Your task to perform on an android device: Clear all items from cart on bestbuy.com. Image 0: 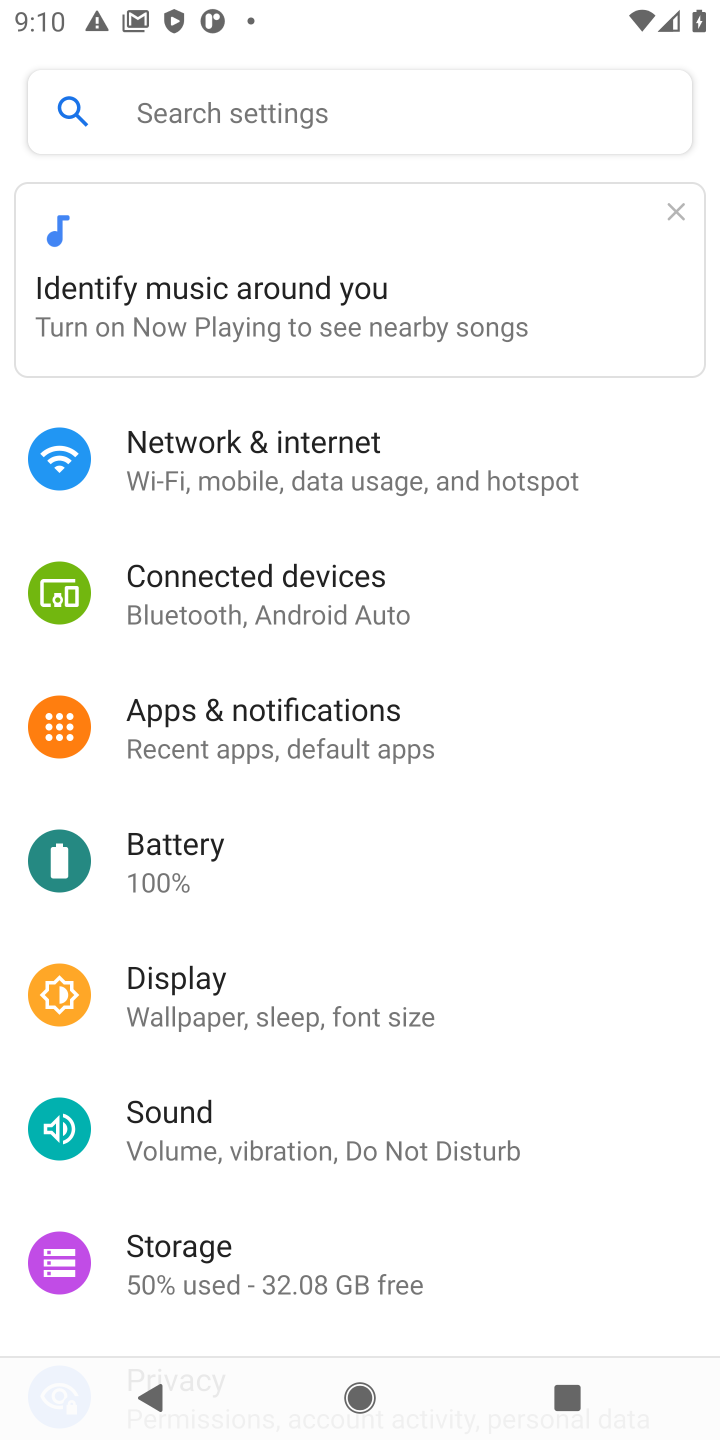
Step 0: press home button
Your task to perform on an android device: Clear all items from cart on bestbuy.com. Image 1: 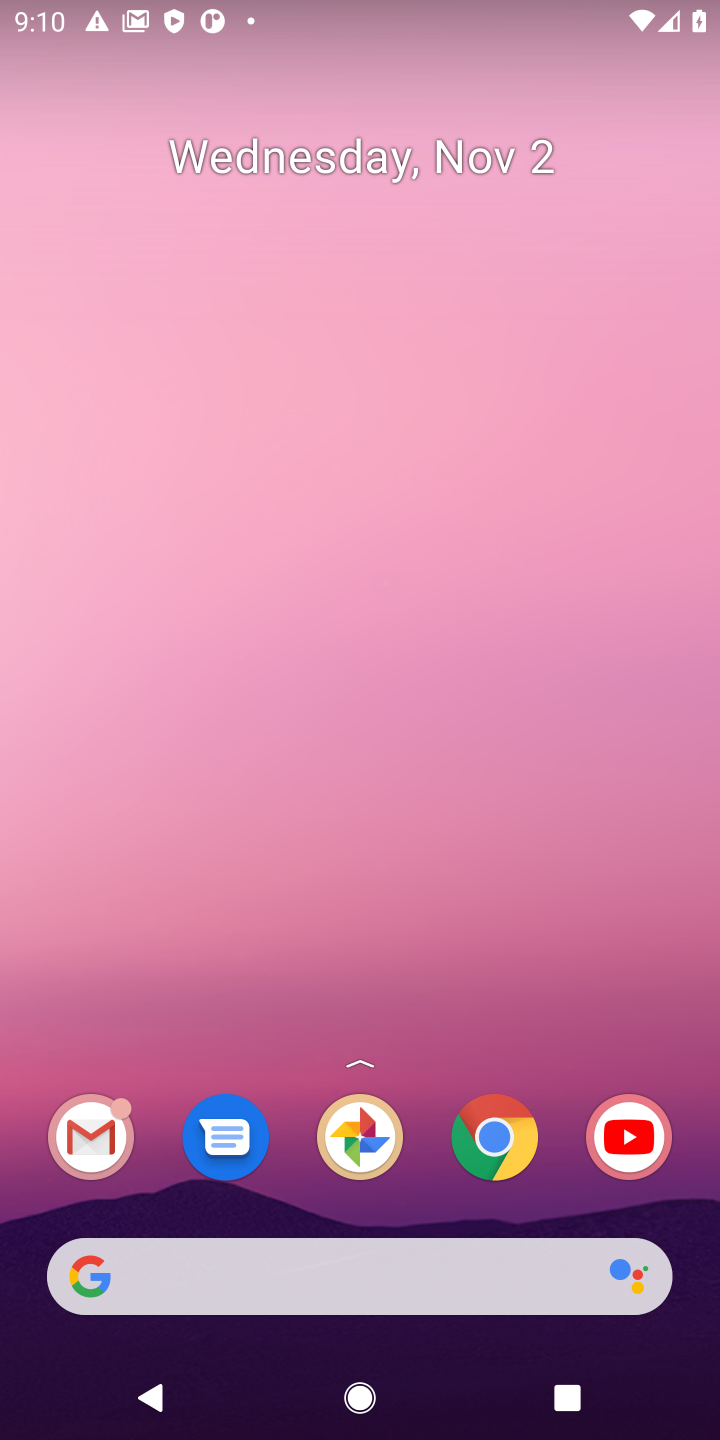
Step 1: click (497, 1149)
Your task to perform on an android device: Clear all items from cart on bestbuy.com. Image 2: 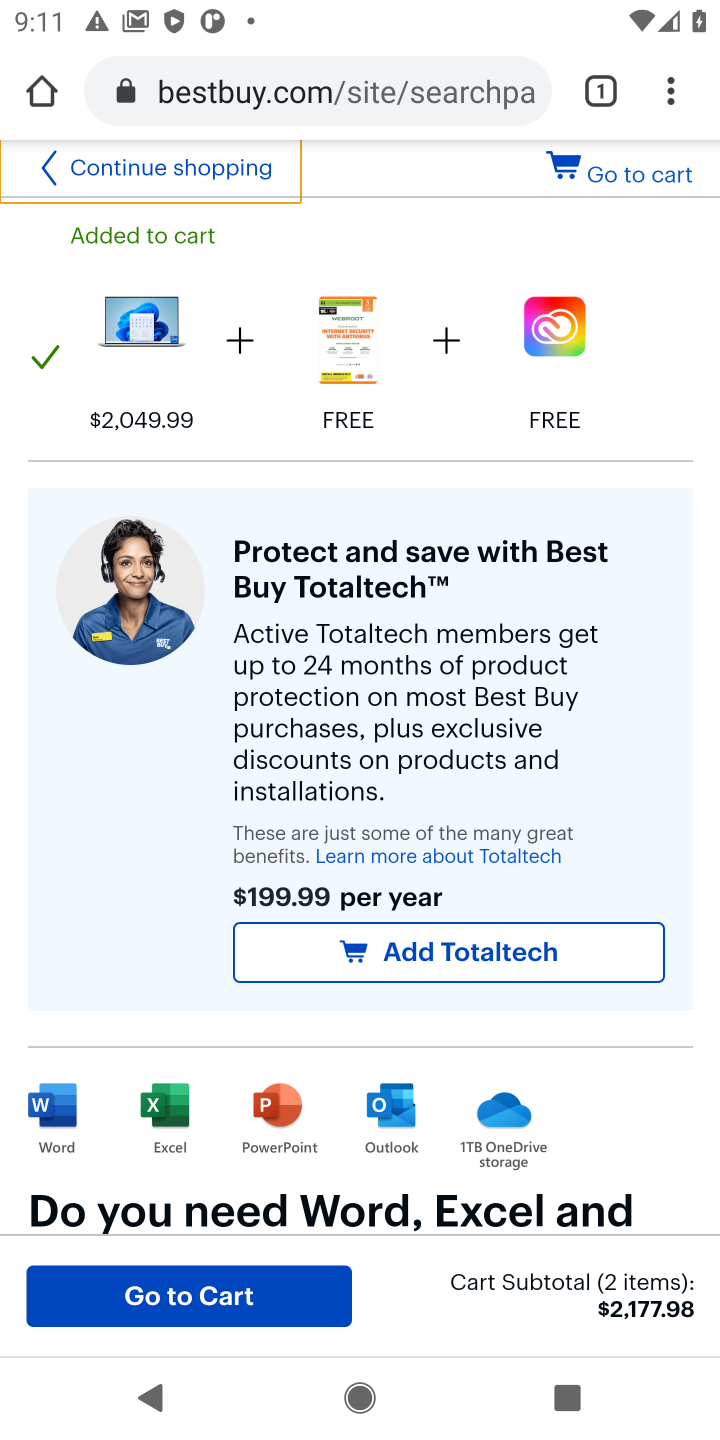
Step 2: drag from (393, 259) to (435, 775)
Your task to perform on an android device: Clear all items from cart on bestbuy.com. Image 3: 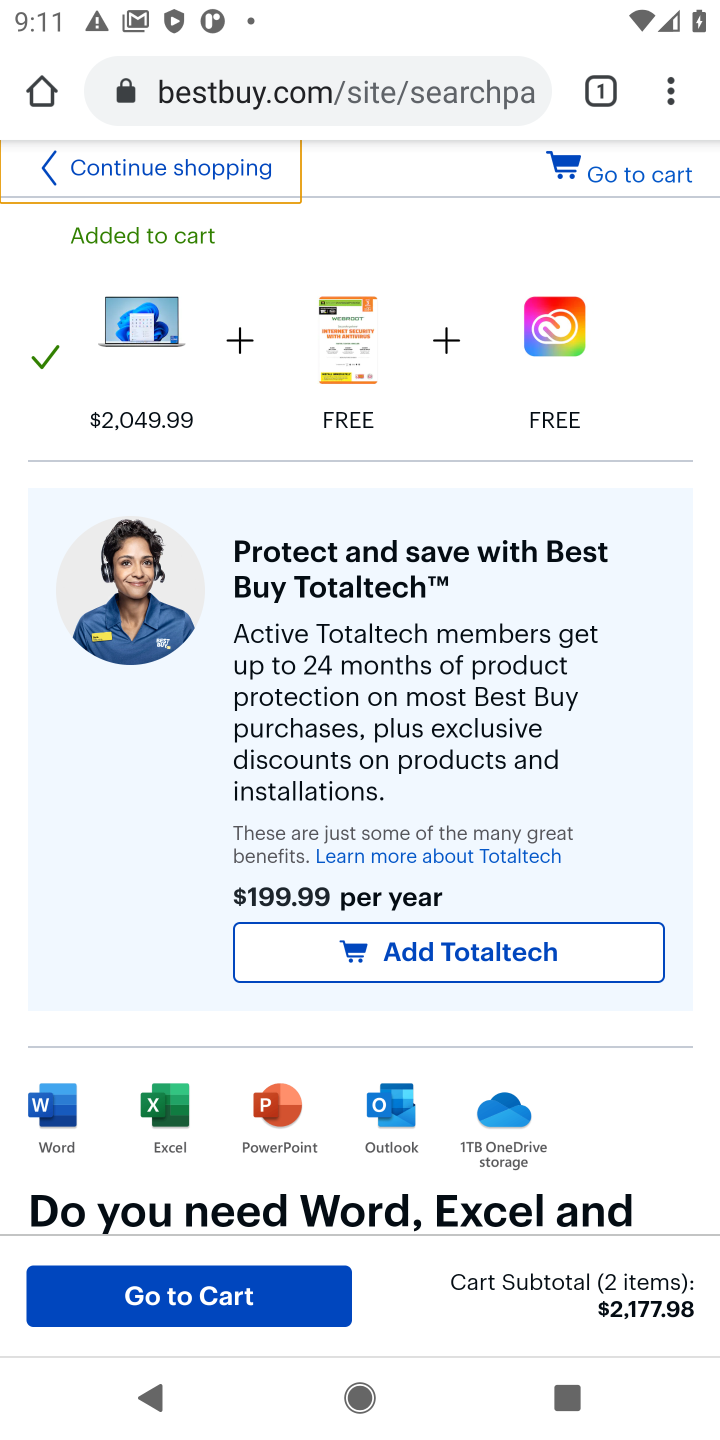
Step 3: click (647, 170)
Your task to perform on an android device: Clear all items from cart on bestbuy.com. Image 4: 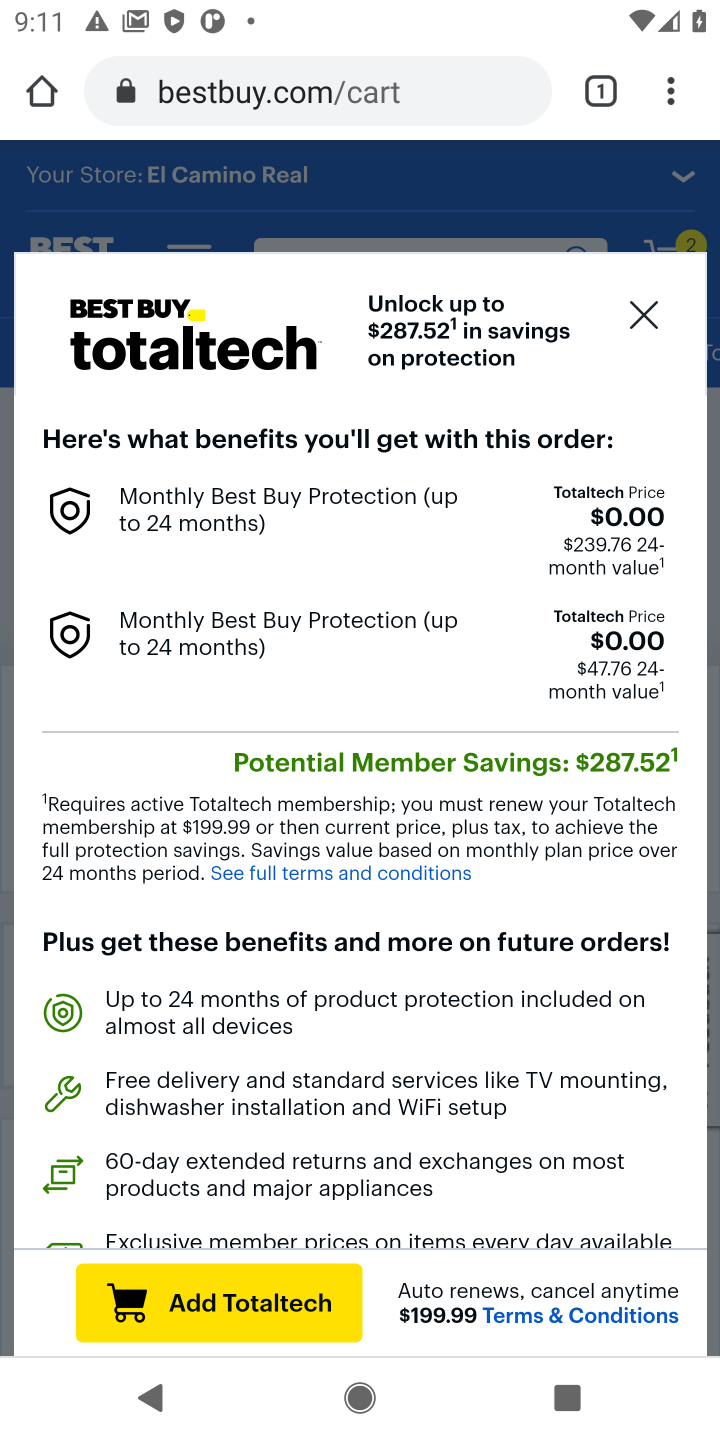
Step 4: click (632, 308)
Your task to perform on an android device: Clear all items from cart on bestbuy.com. Image 5: 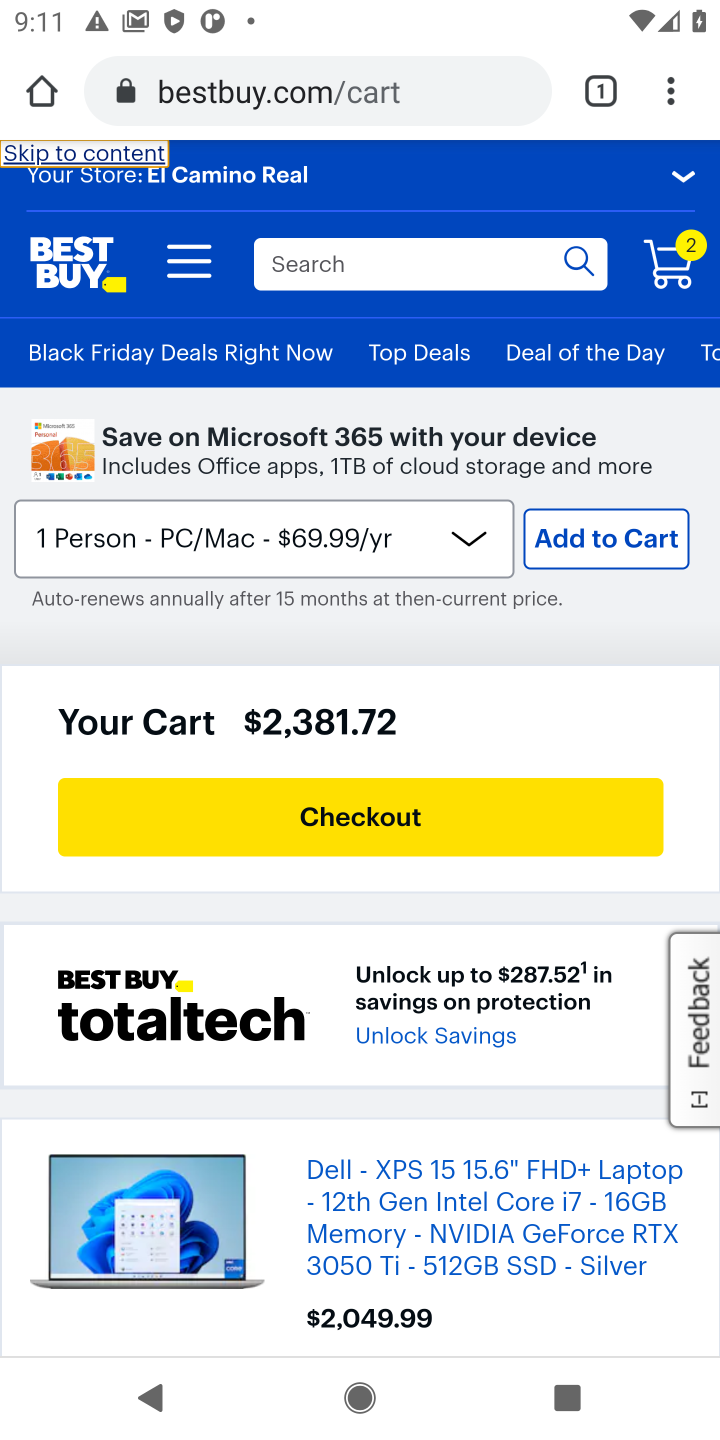
Step 5: drag from (347, 1046) to (375, 452)
Your task to perform on an android device: Clear all items from cart on bestbuy.com. Image 6: 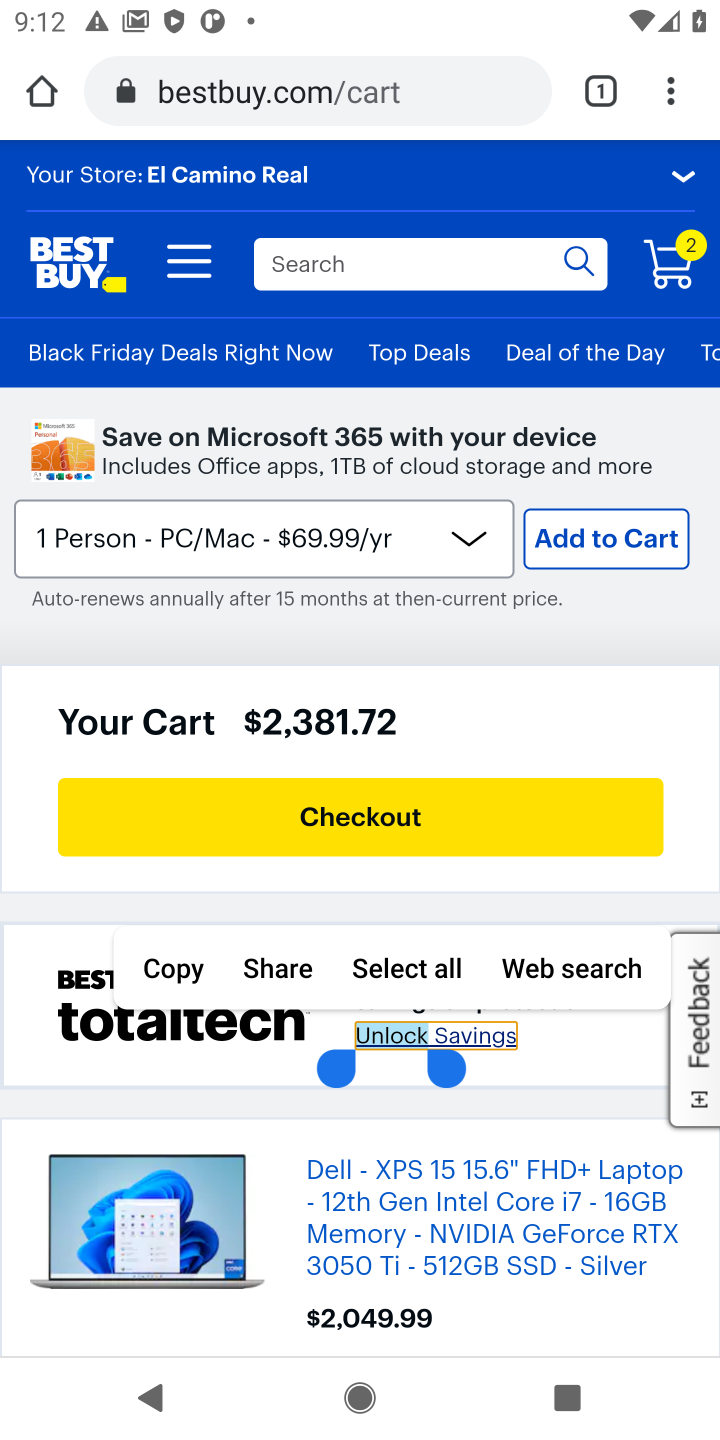
Step 6: click (325, 883)
Your task to perform on an android device: Clear all items from cart on bestbuy.com. Image 7: 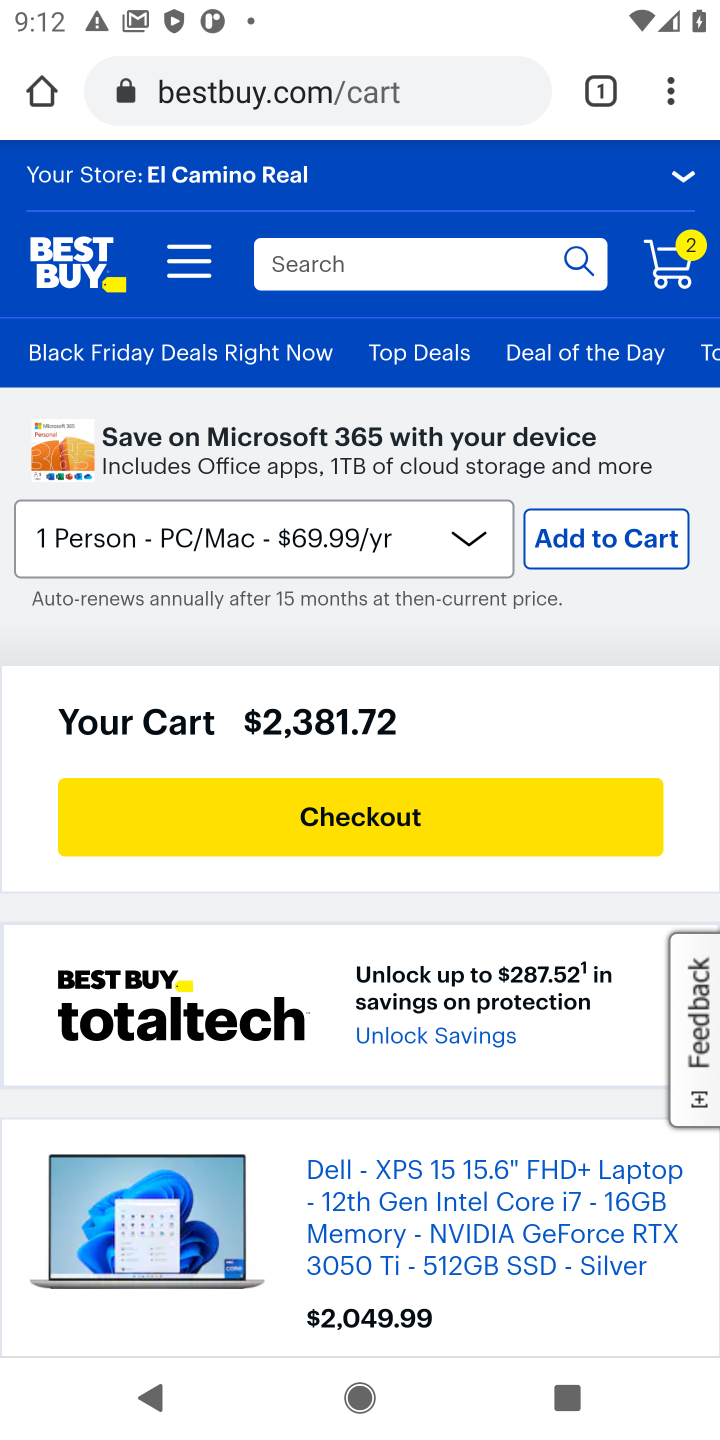
Step 7: drag from (325, 883) to (459, 186)
Your task to perform on an android device: Clear all items from cart on bestbuy.com. Image 8: 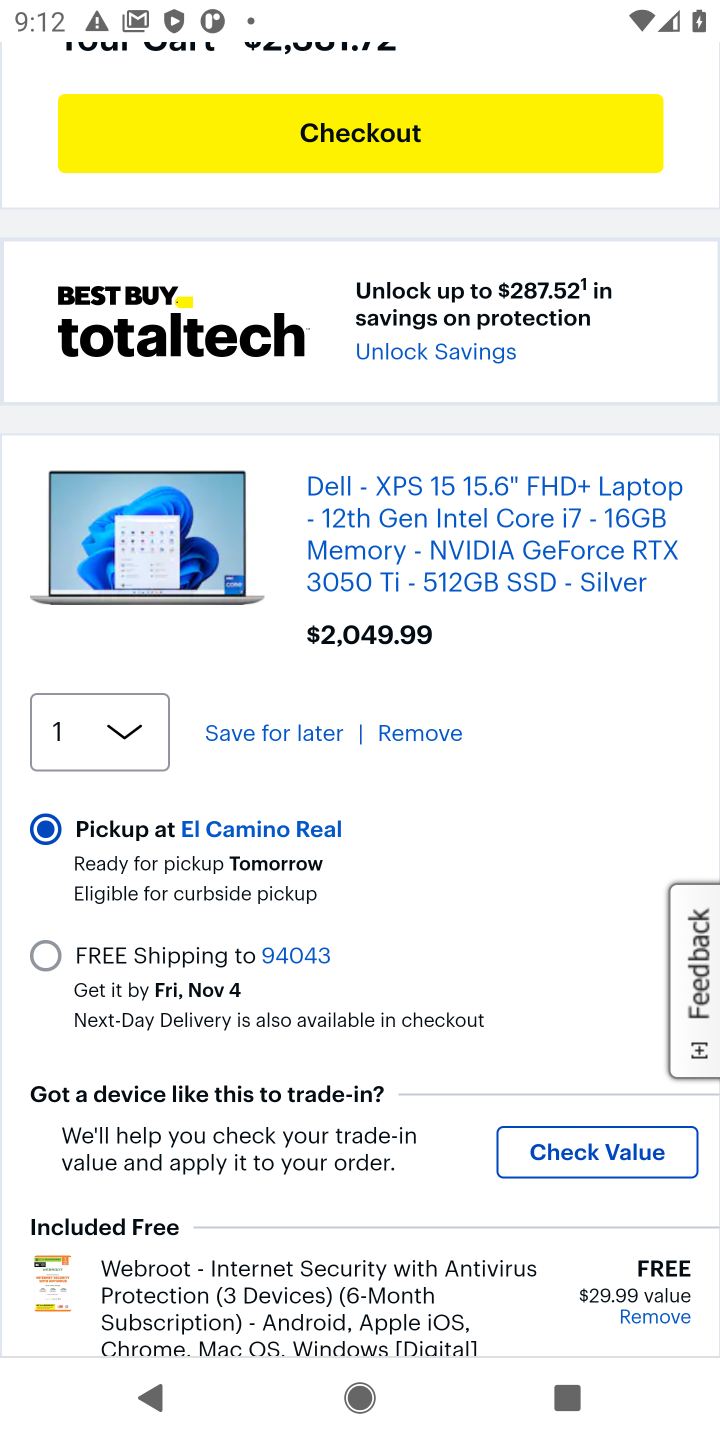
Step 8: click (404, 729)
Your task to perform on an android device: Clear all items from cart on bestbuy.com. Image 9: 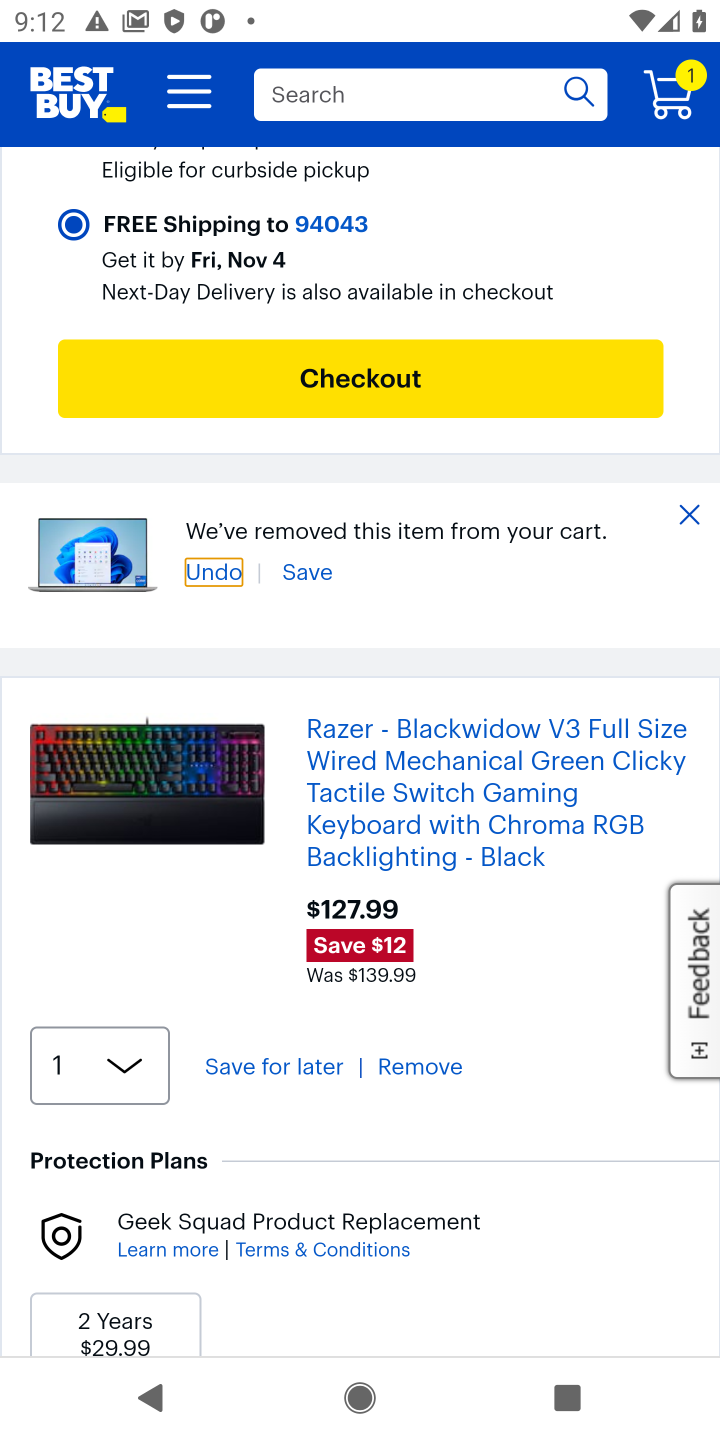
Step 9: click (418, 1059)
Your task to perform on an android device: Clear all items from cart on bestbuy.com. Image 10: 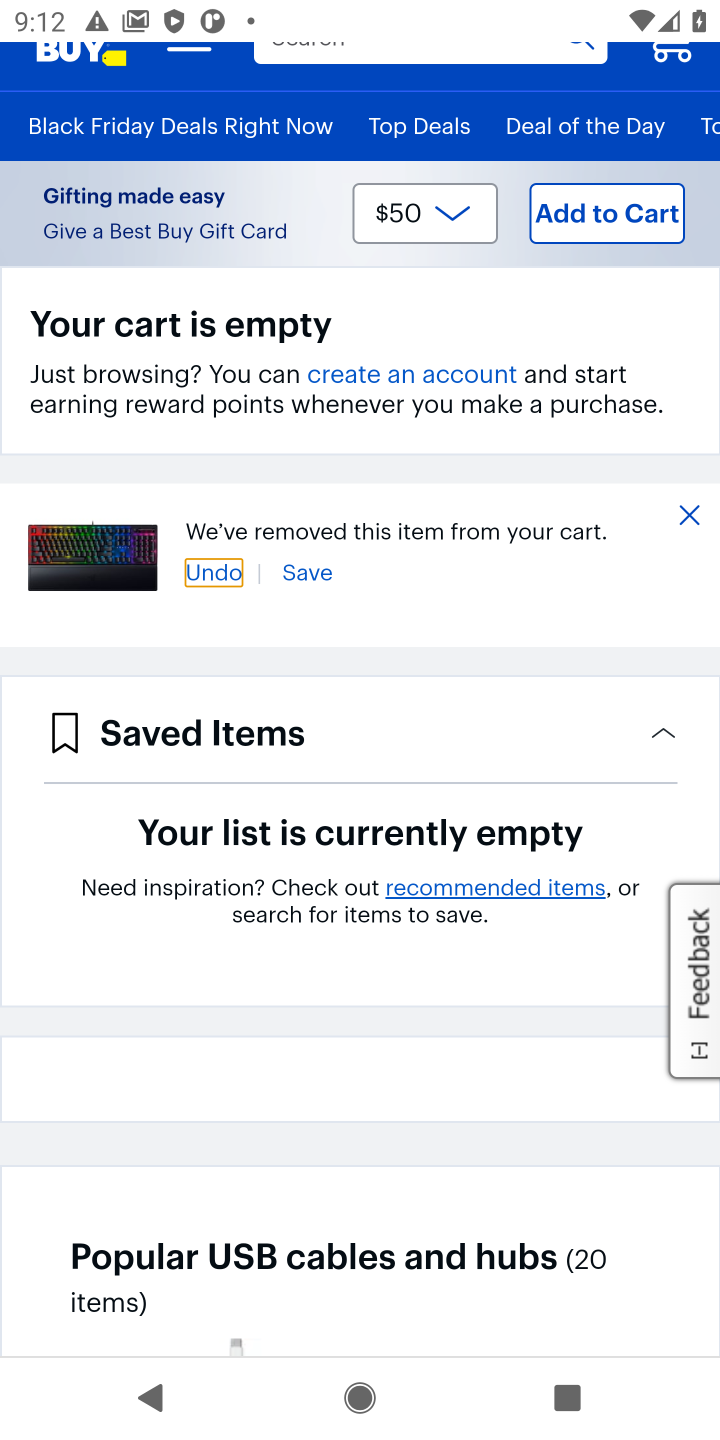
Step 10: task complete